Your task to perform on an android device: turn off airplane mode Image 0: 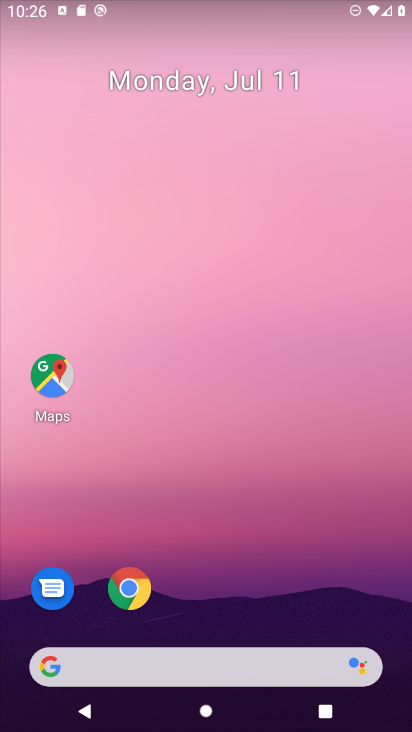
Step 0: drag from (240, 3) to (233, 566)
Your task to perform on an android device: turn off airplane mode Image 1: 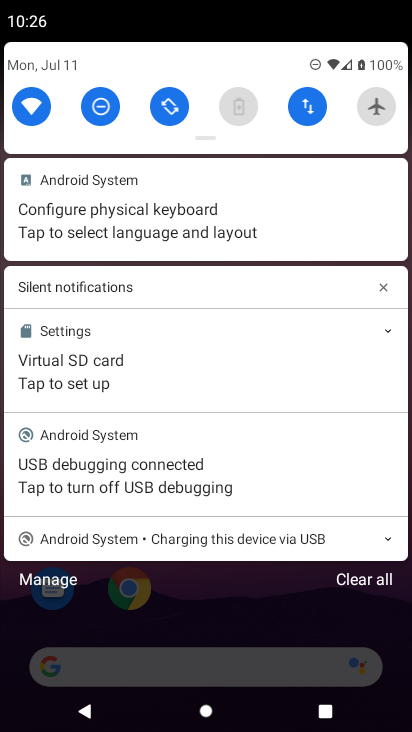
Step 1: task complete